Your task to perform on an android device: remove spam from my inbox in the gmail app Image 0: 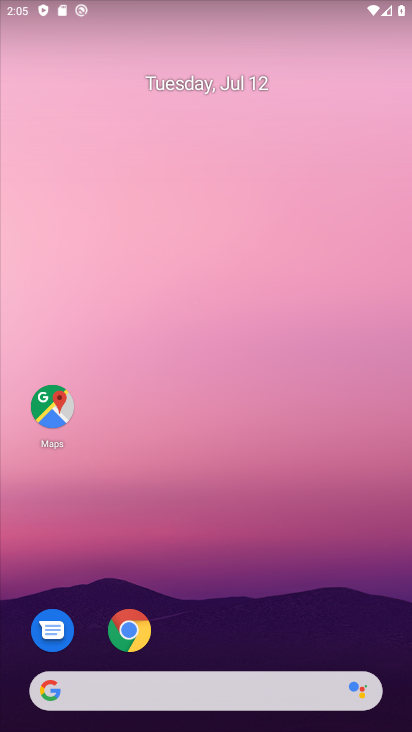
Step 0: drag from (361, 626) to (302, 4)
Your task to perform on an android device: remove spam from my inbox in the gmail app Image 1: 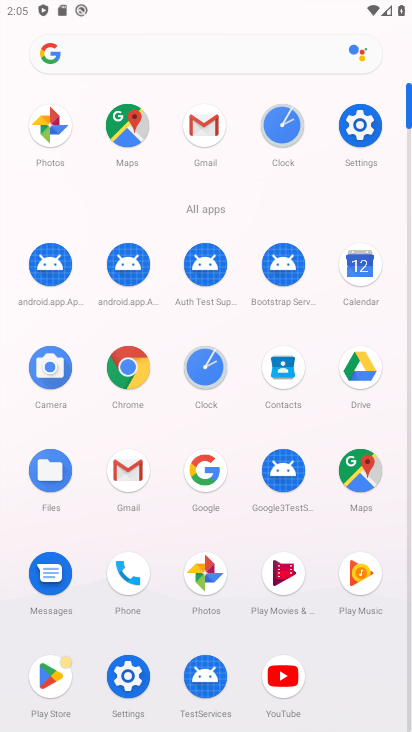
Step 1: click (129, 466)
Your task to perform on an android device: remove spam from my inbox in the gmail app Image 2: 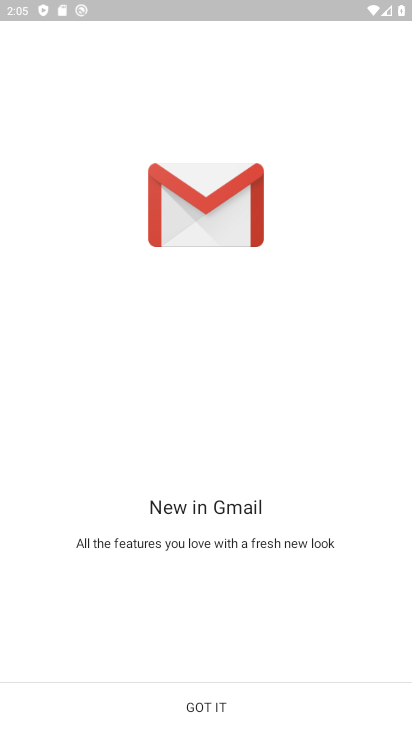
Step 2: click (203, 708)
Your task to perform on an android device: remove spam from my inbox in the gmail app Image 3: 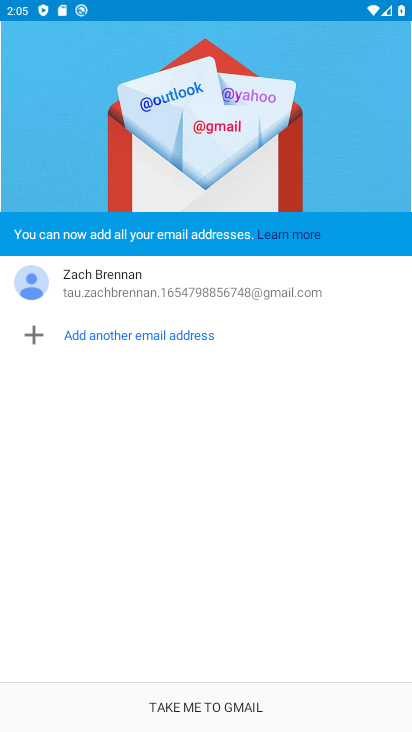
Step 3: click (203, 708)
Your task to perform on an android device: remove spam from my inbox in the gmail app Image 4: 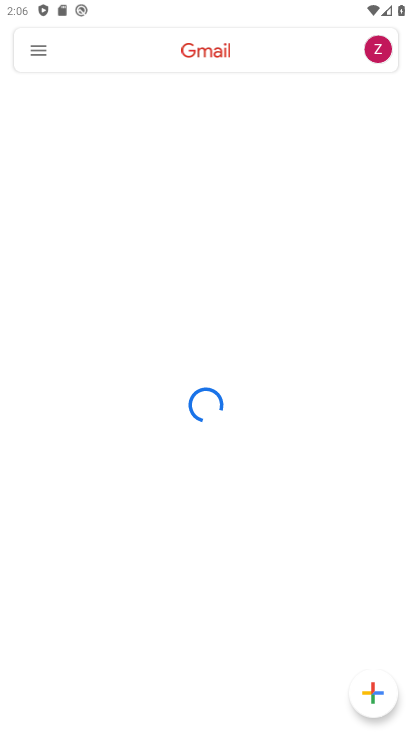
Step 4: click (35, 52)
Your task to perform on an android device: remove spam from my inbox in the gmail app Image 5: 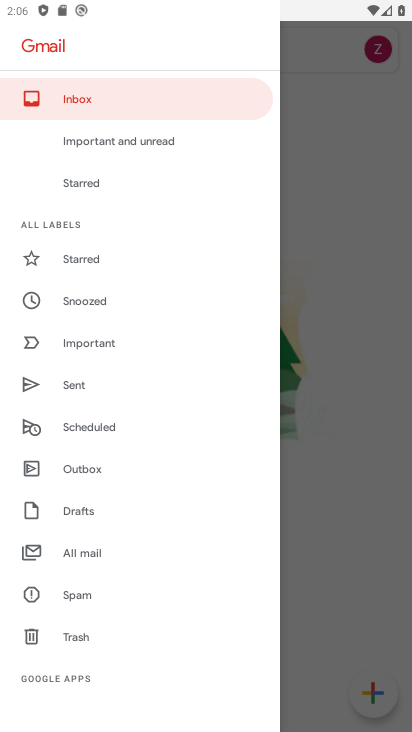
Step 5: click (69, 599)
Your task to perform on an android device: remove spam from my inbox in the gmail app Image 6: 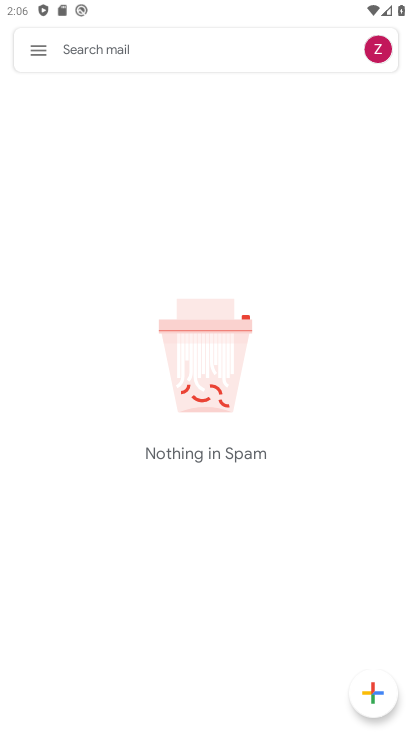
Step 6: task complete